Your task to perform on an android device: Clear all items from cart on bestbuy.com. Search for "razer naga" on bestbuy.com, select the first entry, add it to the cart, then select checkout. Image 0: 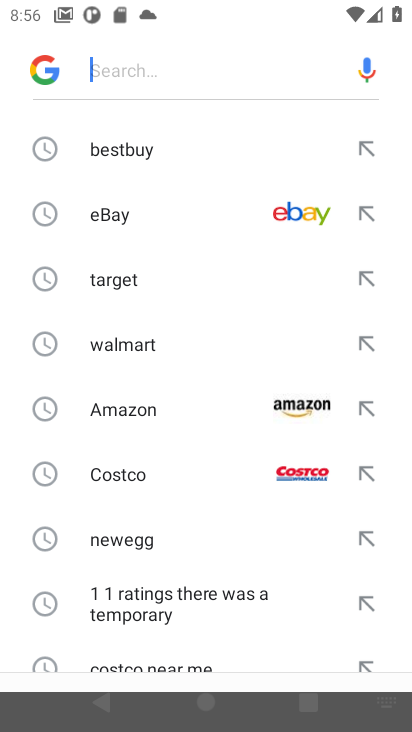
Step 0: click (257, 550)
Your task to perform on an android device: Clear all items from cart on bestbuy.com. Search for "razer naga" on bestbuy.com, select the first entry, add it to the cart, then select checkout. Image 1: 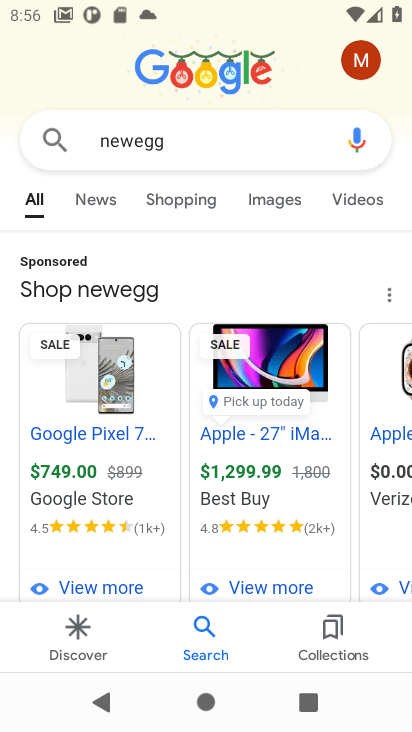
Step 1: click (197, 75)
Your task to perform on an android device: Clear all items from cart on bestbuy.com. Search for "razer naga" on bestbuy.com, select the first entry, add it to the cart, then select checkout. Image 2: 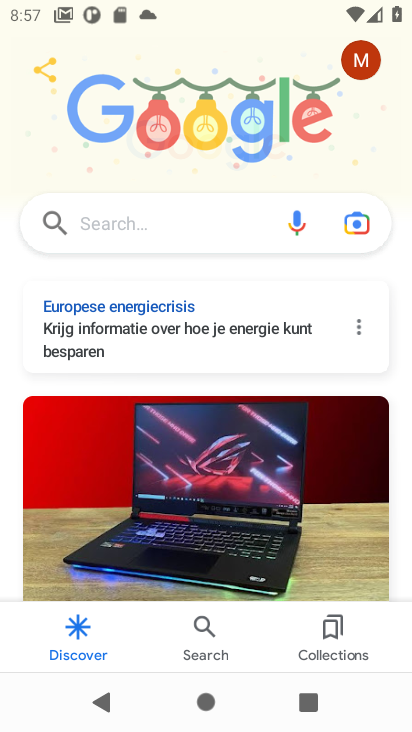
Step 2: click (197, 135)
Your task to perform on an android device: Clear all items from cart on bestbuy.com. Search for "razer naga" on bestbuy.com, select the first entry, add it to the cart, then select checkout. Image 3: 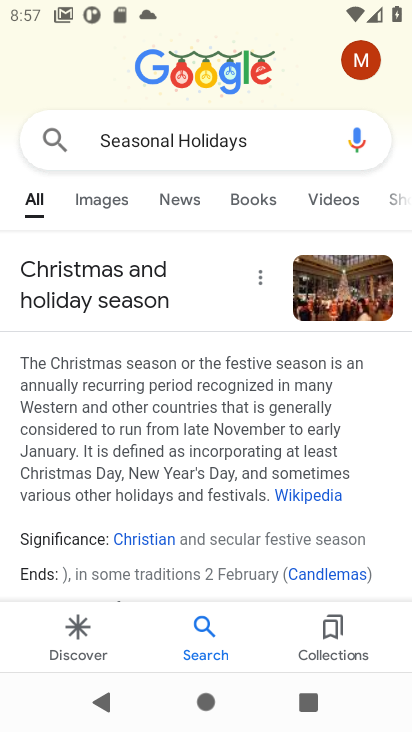
Step 3: click (264, 122)
Your task to perform on an android device: Clear all items from cart on bestbuy.com. Search for "razer naga" on bestbuy.com, select the first entry, add it to the cart, then select checkout. Image 4: 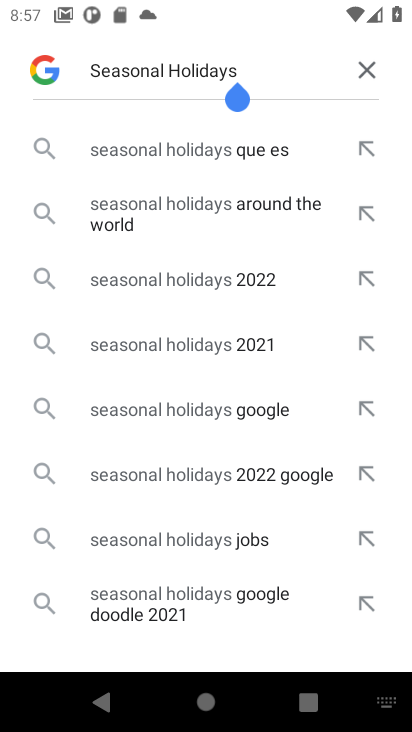
Step 4: click (369, 71)
Your task to perform on an android device: Clear all items from cart on bestbuy.com. Search for "razer naga" on bestbuy.com, select the first entry, add it to the cart, then select checkout. Image 5: 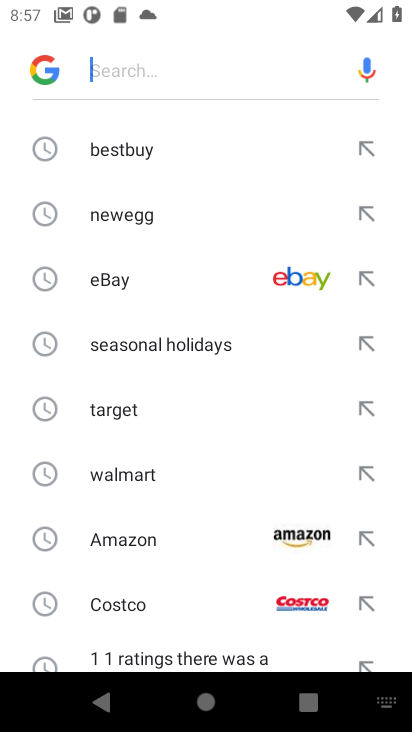
Step 5: click (198, 167)
Your task to perform on an android device: Clear all items from cart on bestbuy.com. Search for "razer naga" on bestbuy.com, select the first entry, add it to the cart, then select checkout. Image 6: 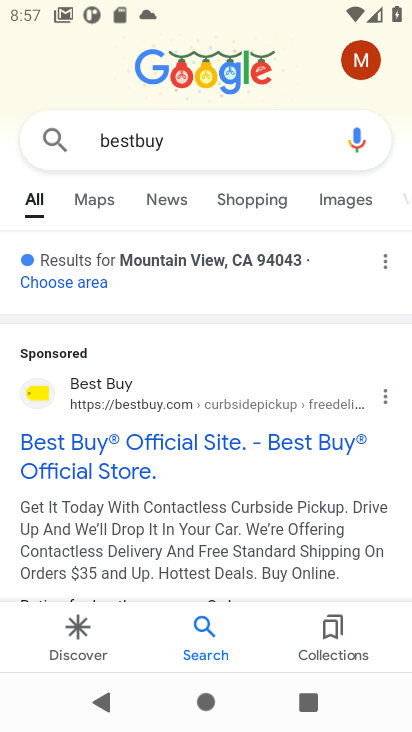
Step 6: click (86, 468)
Your task to perform on an android device: Clear all items from cart on bestbuy.com. Search for "razer naga" on bestbuy.com, select the first entry, add it to the cart, then select checkout. Image 7: 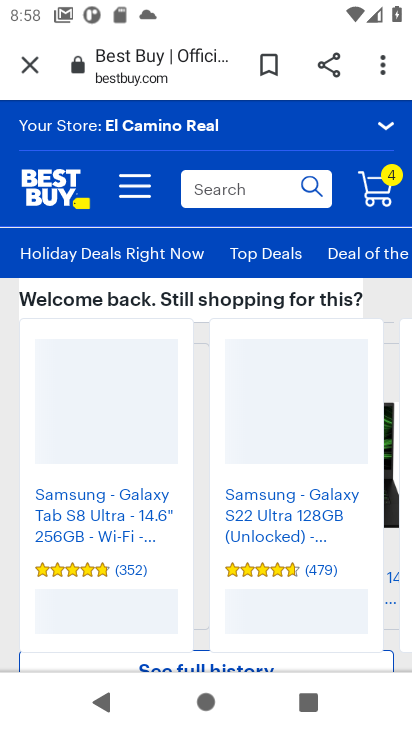
Step 7: click (217, 185)
Your task to perform on an android device: Clear all items from cart on bestbuy.com. Search for "razer naga" on bestbuy.com, select the first entry, add it to the cart, then select checkout. Image 8: 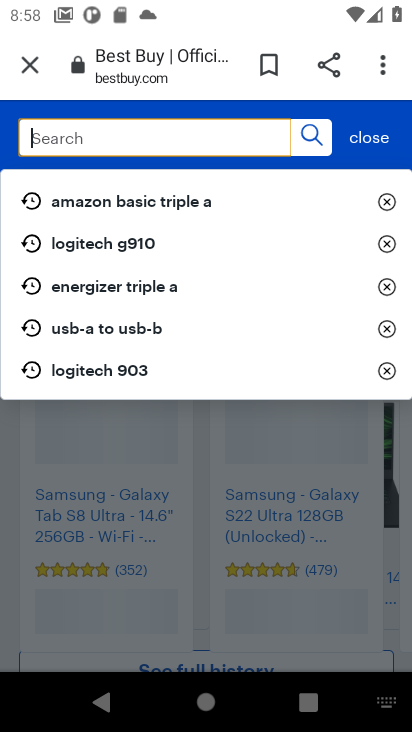
Step 8: type "razer naga"
Your task to perform on an android device: Clear all items from cart on bestbuy.com. Search for "razer naga" on bestbuy.com, select the first entry, add it to the cart, then select checkout. Image 9: 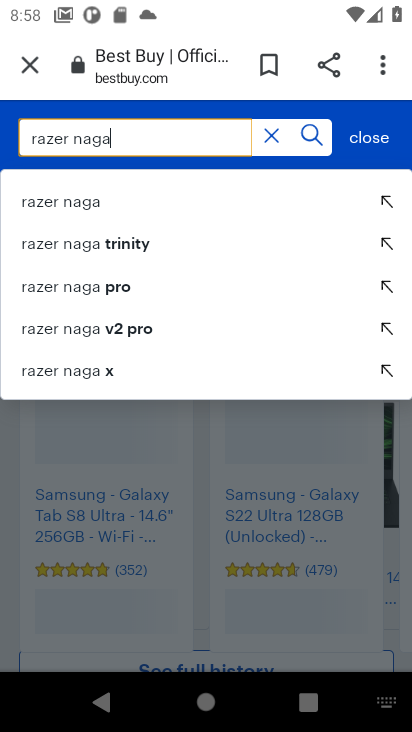
Step 9: click (70, 187)
Your task to perform on an android device: Clear all items from cart on bestbuy.com. Search for "razer naga" on bestbuy.com, select the first entry, add it to the cart, then select checkout. Image 10: 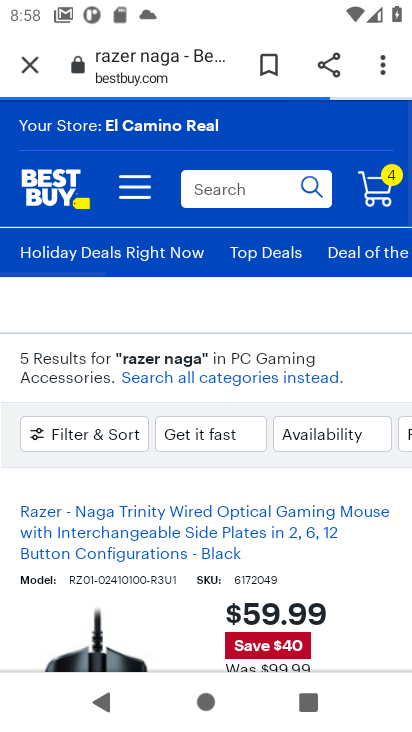
Step 10: click (323, 151)
Your task to perform on an android device: Clear all items from cart on bestbuy.com. Search for "razer naga" on bestbuy.com, select the first entry, add it to the cart, then select checkout. Image 11: 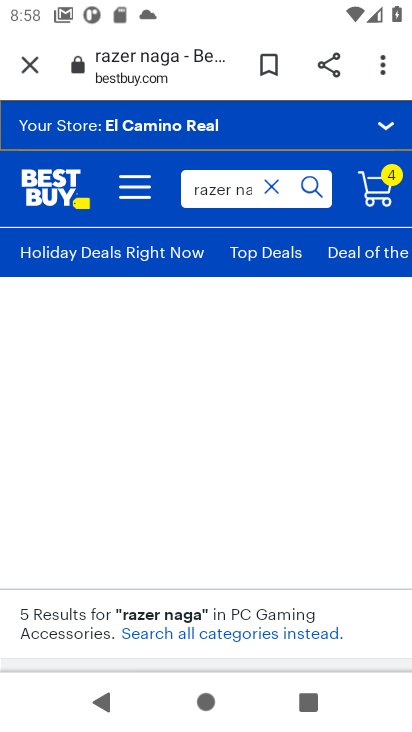
Step 11: drag from (275, 633) to (263, 203)
Your task to perform on an android device: Clear all items from cart on bestbuy.com. Search for "razer naga" on bestbuy.com, select the first entry, add it to the cart, then select checkout. Image 12: 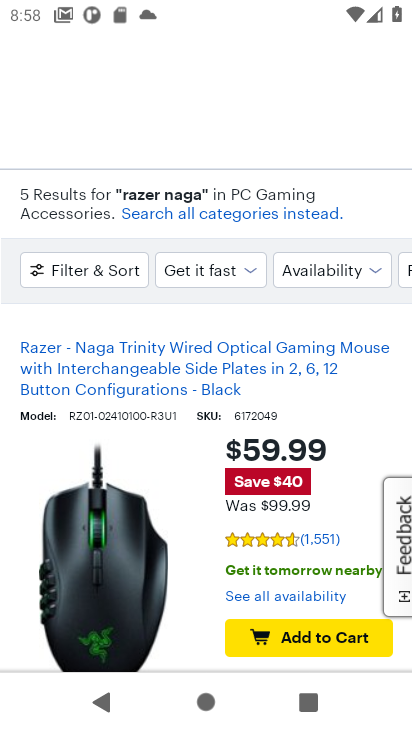
Step 12: click (272, 629)
Your task to perform on an android device: Clear all items from cart on bestbuy.com. Search for "razer naga" on bestbuy.com, select the first entry, add it to the cart, then select checkout. Image 13: 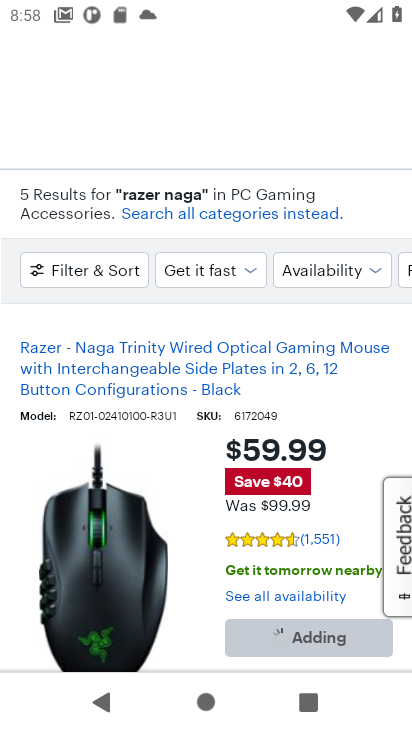
Step 13: task complete